Your task to perform on an android device: Search for sushi restaurants on Maps Image 0: 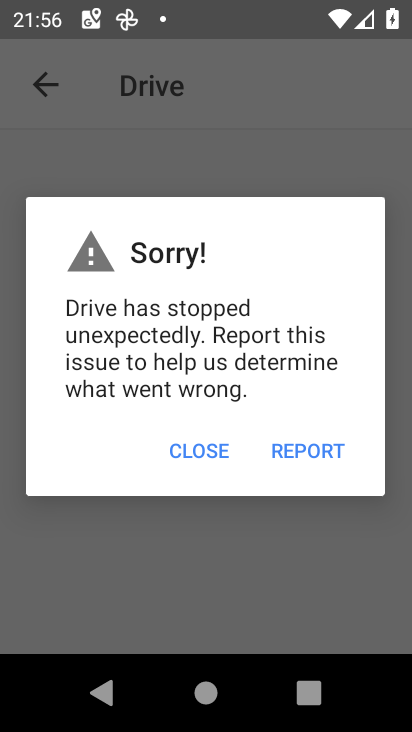
Step 0: click (389, 535)
Your task to perform on an android device: Search for sushi restaurants on Maps Image 1: 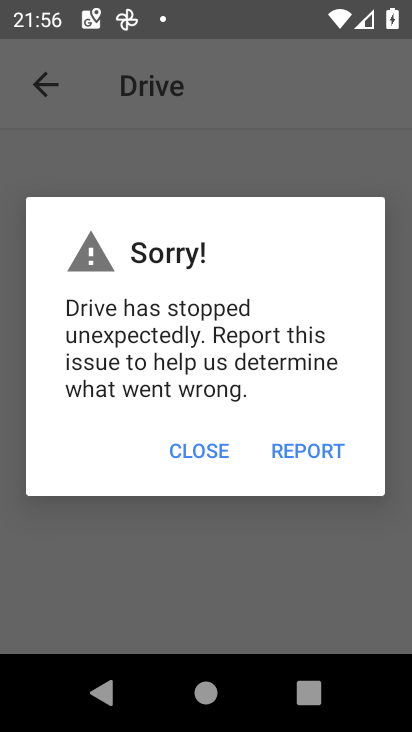
Step 1: click (219, 445)
Your task to perform on an android device: Search for sushi restaurants on Maps Image 2: 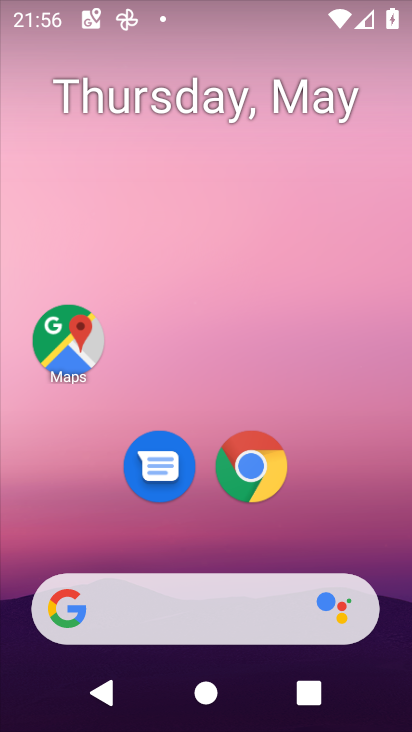
Step 2: click (69, 345)
Your task to perform on an android device: Search for sushi restaurants on Maps Image 3: 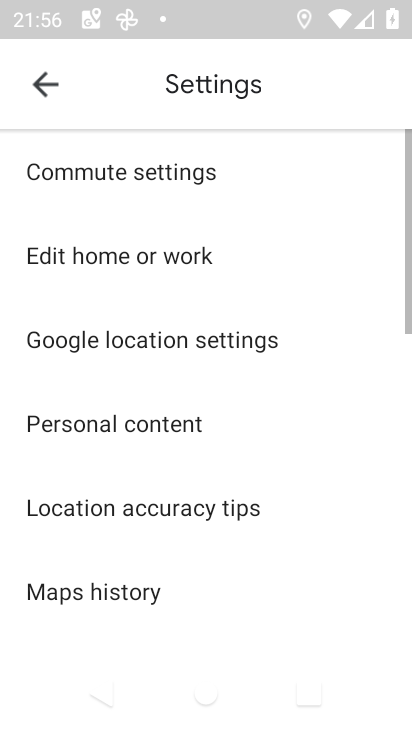
Step 3: click (56, 79)
Your task to perform on an android device: Search for sushi restaurants on Maps Image 4: 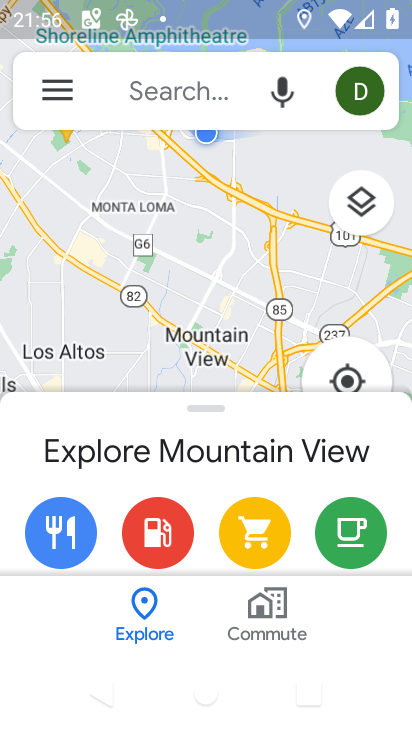
Step 4: click (173, 88)
Your task to perform on an android device: Search for sushi restaurants on Maps Image 5: 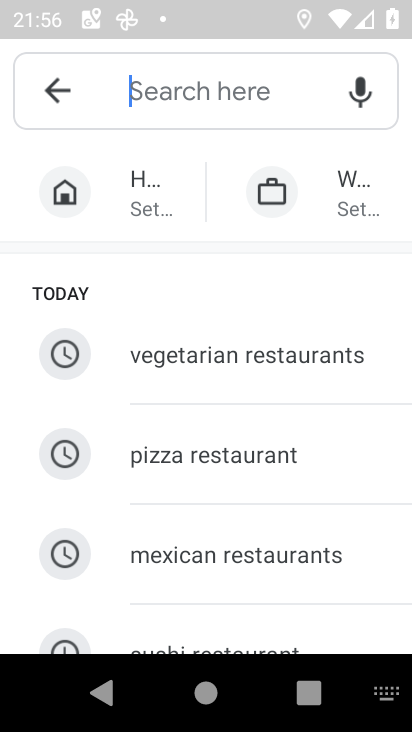
Step 5: click (198, 647)
Your task to perform on an android device: Search for sushi restaurants on Maps Image 6: 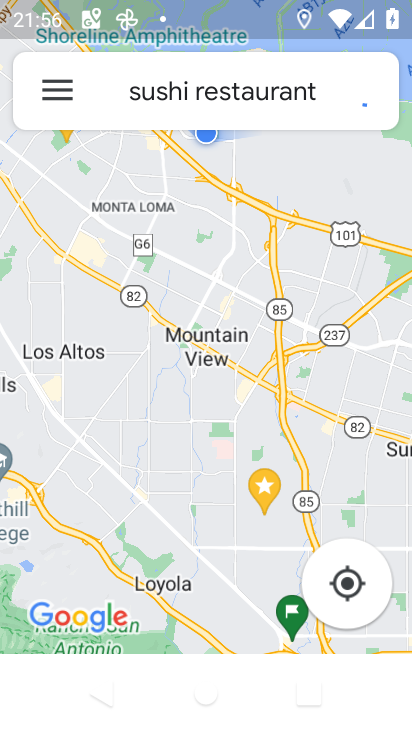
Step 6: task complete